Your task to perform on an android device: Search for Mexican restaurants on Maps Image 0: 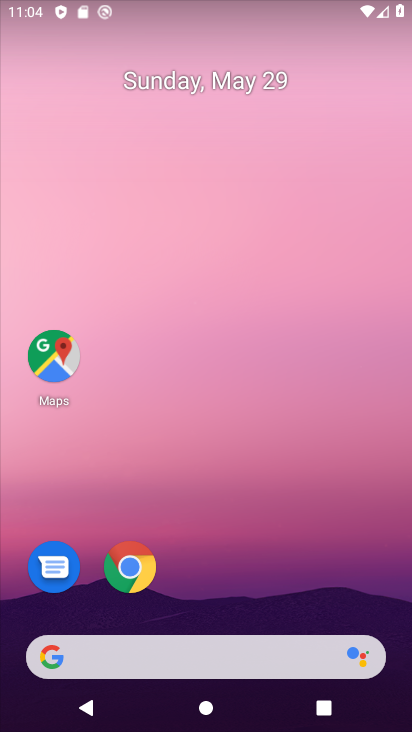
Step 0: click (59, 374)
Your task to perform on an android device: Search for Mexican restaurants on Maps Image 1: 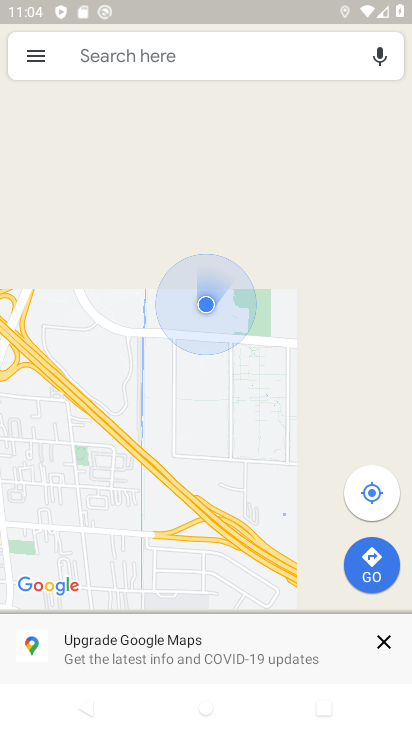
Step 1: click (177, 62)
Your task to perform on an android device: Search for Mexican restaurants on Maps Image 2: 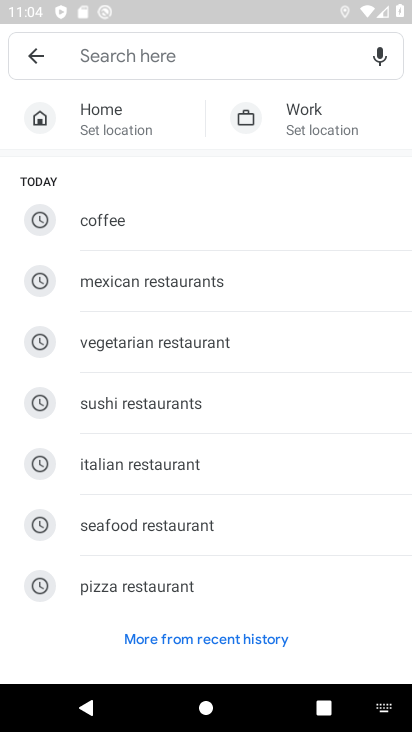
Step 2: click (116, 292)
Your task to perform on an android device: Search for Mexican restaurants on Maps Image 3: 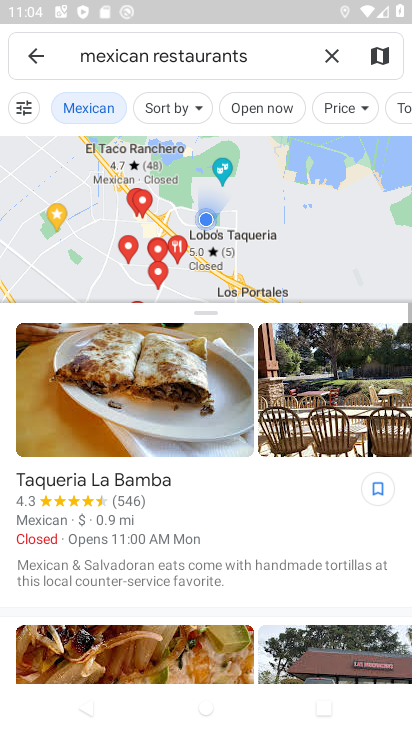
Step 3: task complete